Your task to perform on an android device: Open notification settings Image 0: 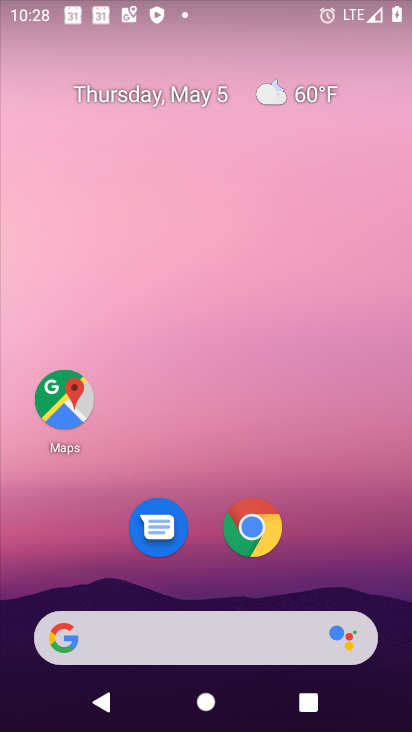
Step 0: drag from (253, 508) to (323, 17)
Your task to perform on an android device: Open notification settings Image 1: 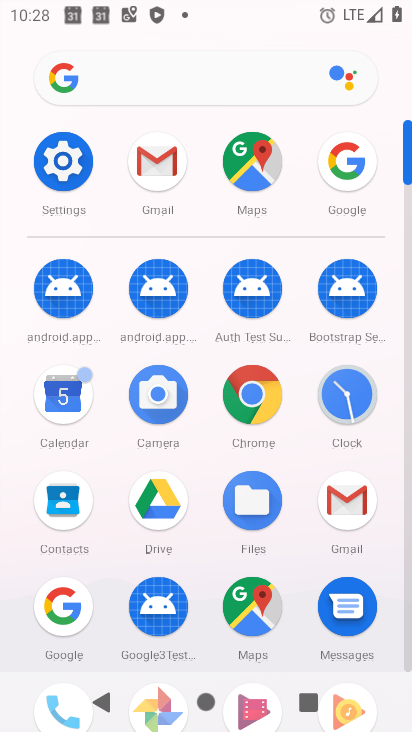
Step 1: click (53, 167)
Your task to perform on an android device: Open notification settings Image 2: 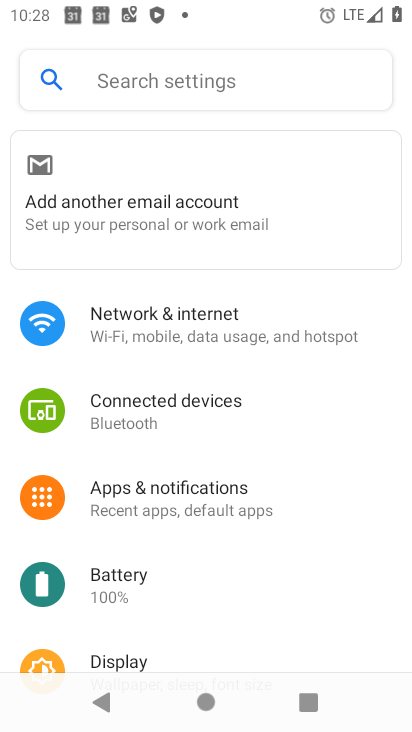
Step 2: click (201, 498)
Your task to perform on an android device: Open notification settings Image 3: 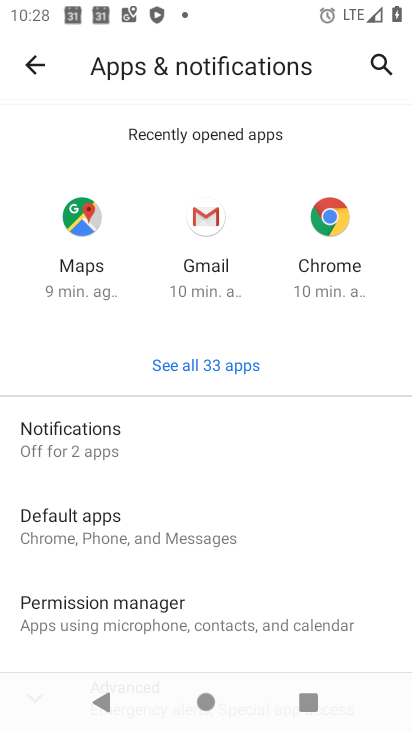
Step 3: task complete